Your task to perform on an android device: turn on data saver in the chrome app Image 0: 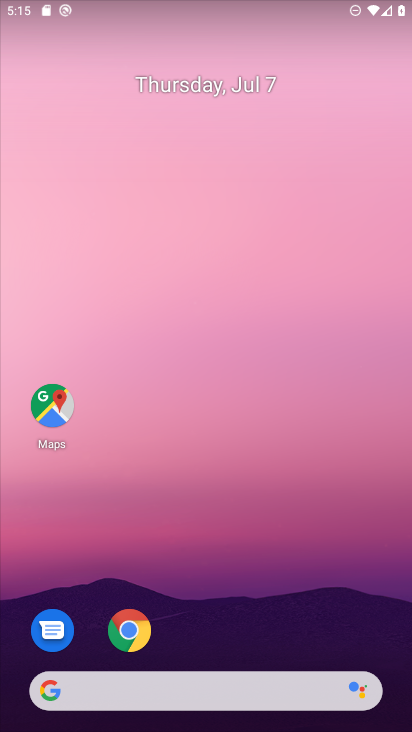
Step 0: drag from (228, 635) to (221, 232)
Your task to perform on an android device: turn on data saver in the chrome app Image 1: 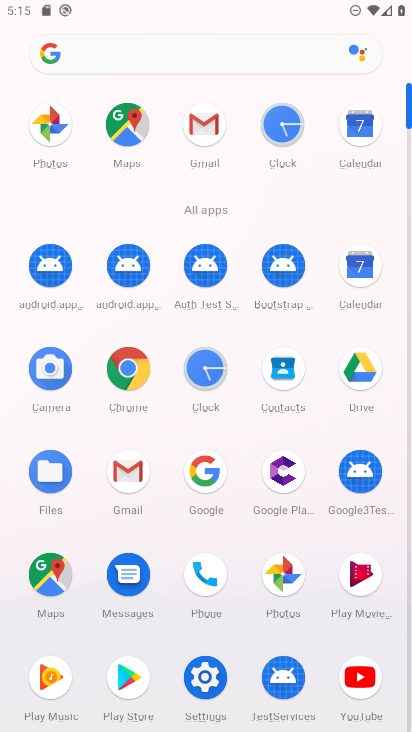
Step 1: click (136, 383)
Your task to perform on an android device: turn on data saver in the chrome app Image 2: 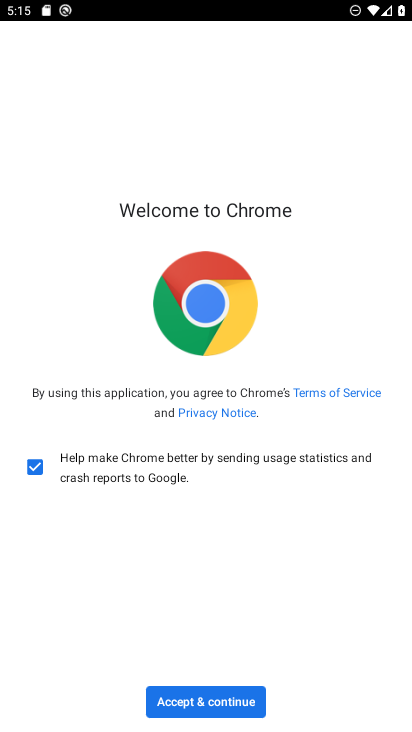
Step 2: click (218, 704)
Your task to perform on an android device: turn on data saver in the chrome app Image 3: 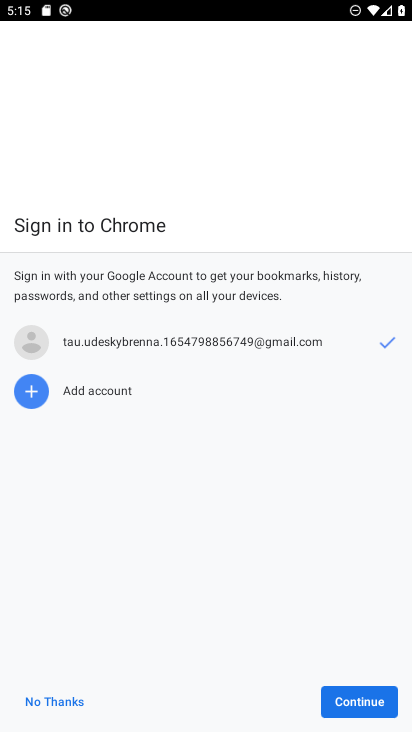
Step 3: click (361, 715)
Your task to perform on an android device: turn on data saver in the chrome app Image 4: 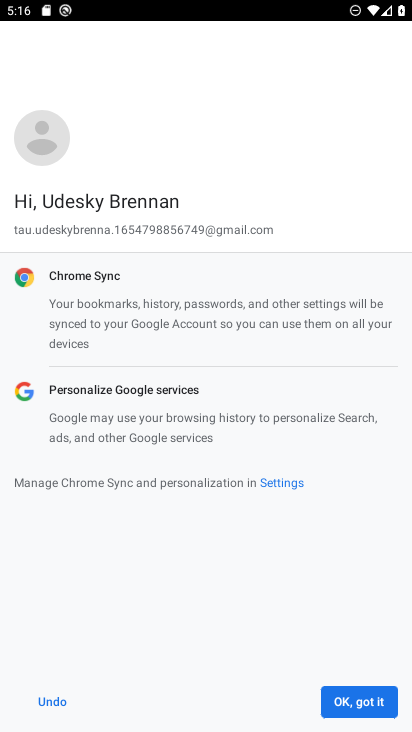
Step 4: click (357, 706)
Your task to perform on an android device: turn on data saver in the chrome app Image 5: 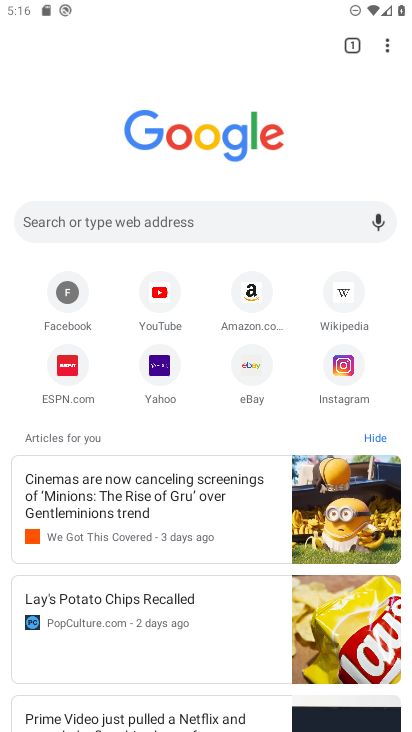
Step 5: drag from (389, 38) to (227, 383)
Your task to perform on an android device: turn on data saver in the chrome app Image 6: 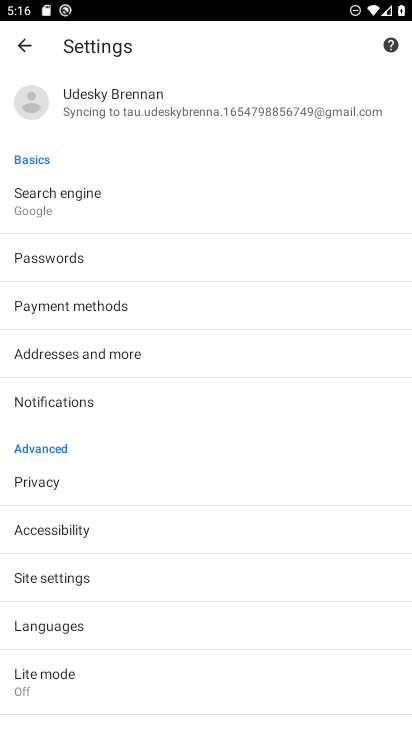
Step 6: click (42, 680)
Your task to perform on an android device: turn on data saver in the chrome app Image 7: 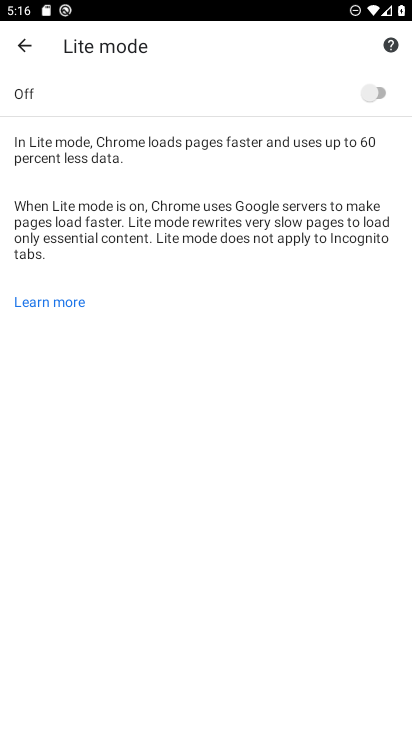
Step 7: click (378, 90)
Your task to perform on an android device: turn on data saver in the chrome app Image 8: 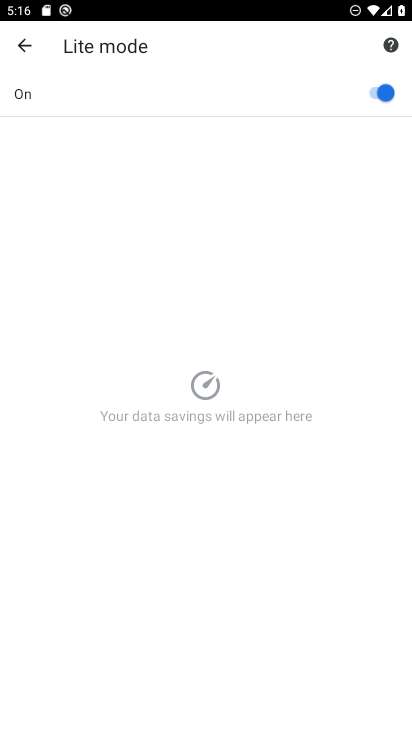
Step 8: task complete